Your task to perform on an android device: turn on data saver in the chrome app Image 0: 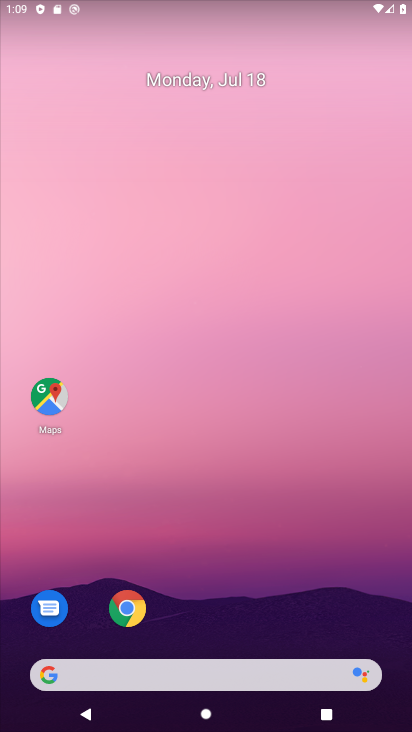
Step 0: drag from (308, 398) to (403, 35)
Your task to perform on an android device: turn on data saver in the chrome app Image 1: 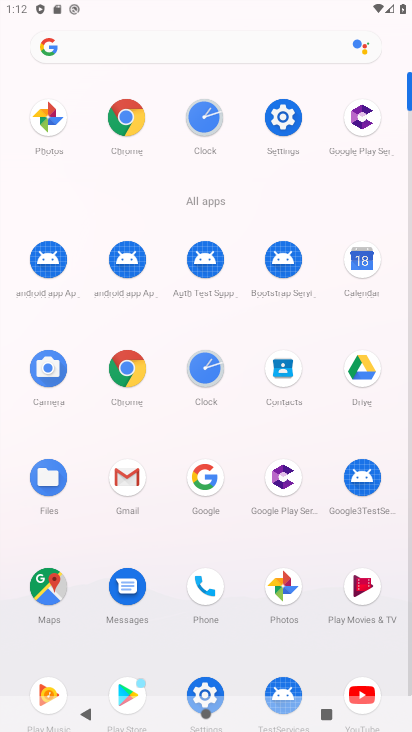
Step 1: click (131, 128)
Your task to perform on an android device: turn on data saver in the chrome app Image 2: 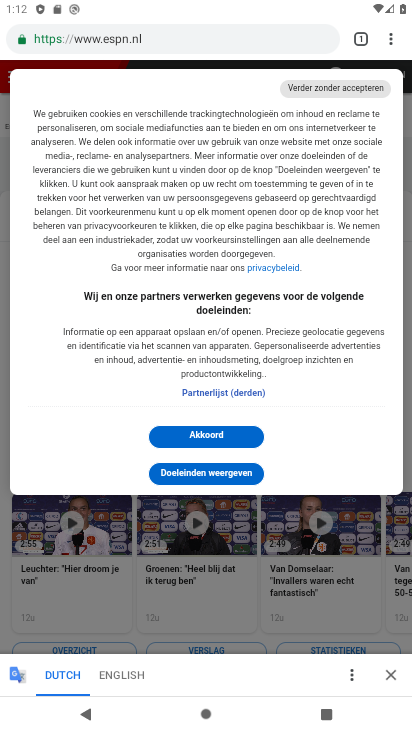
Step 2: drag from (394, 44) to (236, 466)
Your task to perform on an android device: turn on data saver in the chrome app Image 3: 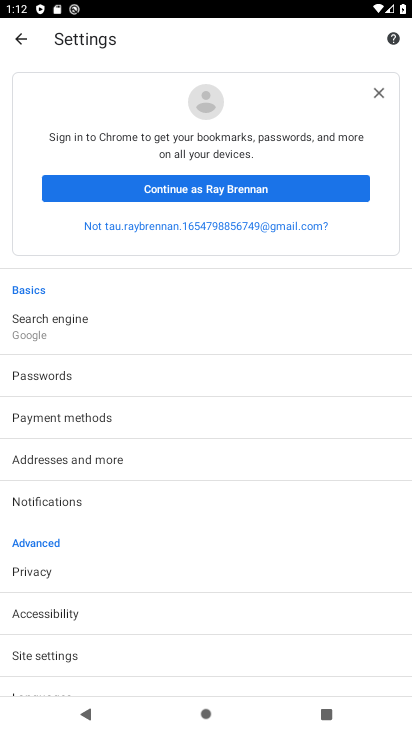
Step 3: drag from (95, 634) to (213, 258)
Your task to perform on an android device: turn on data saver in the chrome app Image 4: 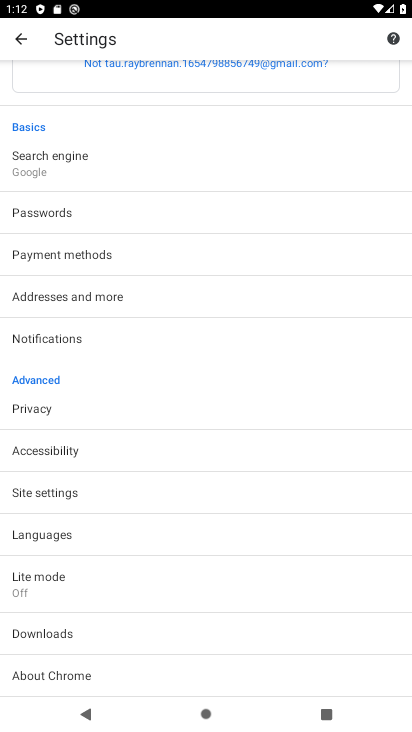
Step 4: click (44, 593)
Your task to perform on an android device: turn on data saver in the chrome app Image 5: 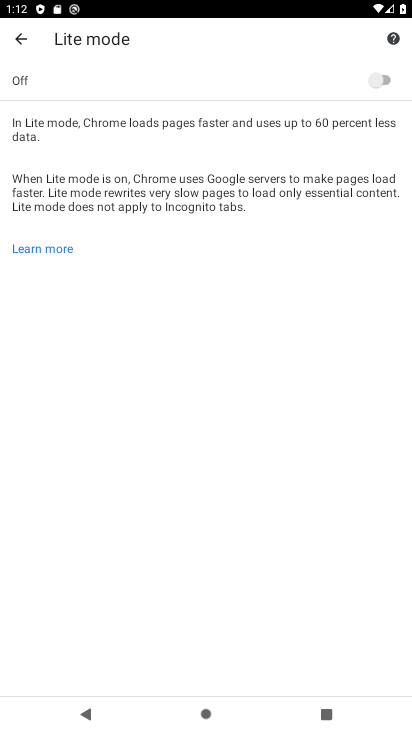
Step 5: click (381, 88)
Your task to perform on an android device: turn on data saver in the chrome app Image 6: 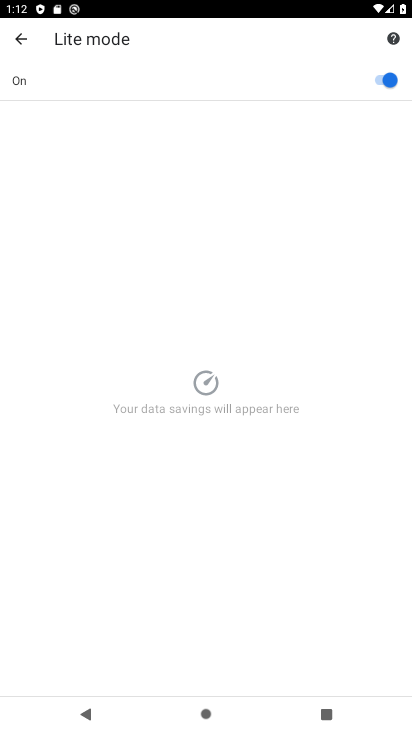
Step 6: task complete